Your task to perform on an android device: Open wifi settings Image 0: 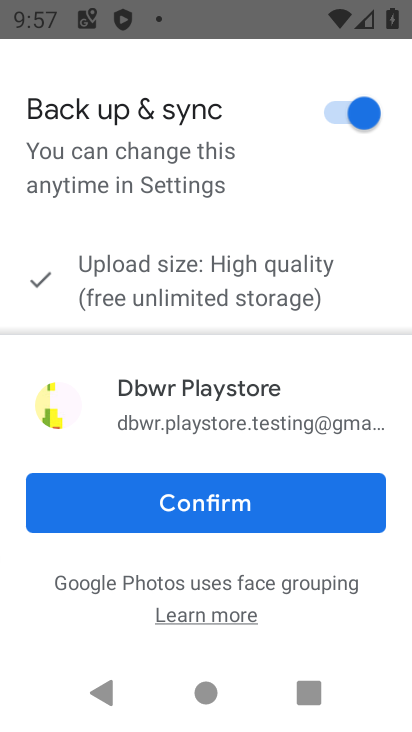
Step 0: press home button
Your task to perform on an android device: Open wifi settings Image 1: 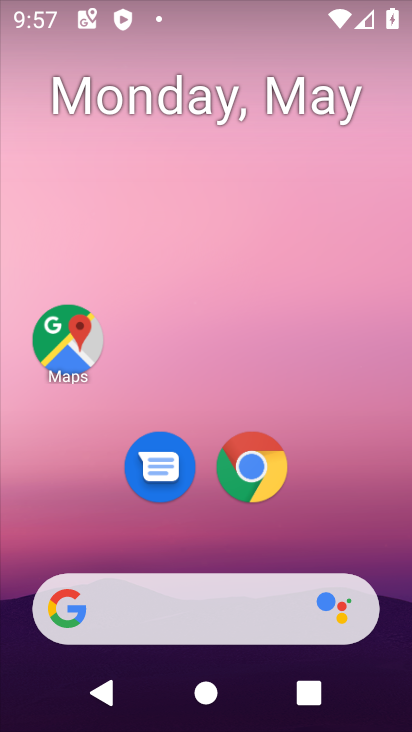
Step 1: drag from (392, 587) to (301, 4)
Your task to perform on an android device: Open wifi settings Image 2: 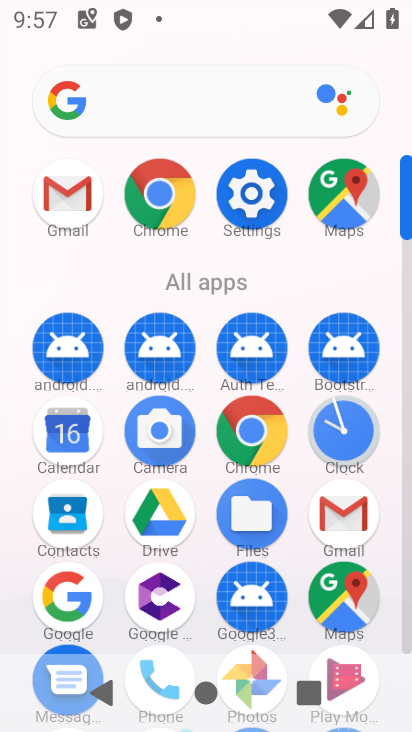
Step 2: click (406, 621)
Your task to perform on an android device: Open wifi settings Image 3: 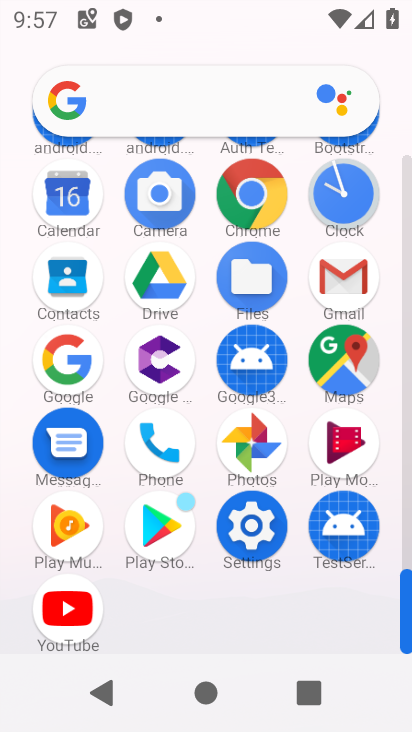
Step 3: click (254, 524)
Your task to perform on an android device: Open wifi settings Image 4: 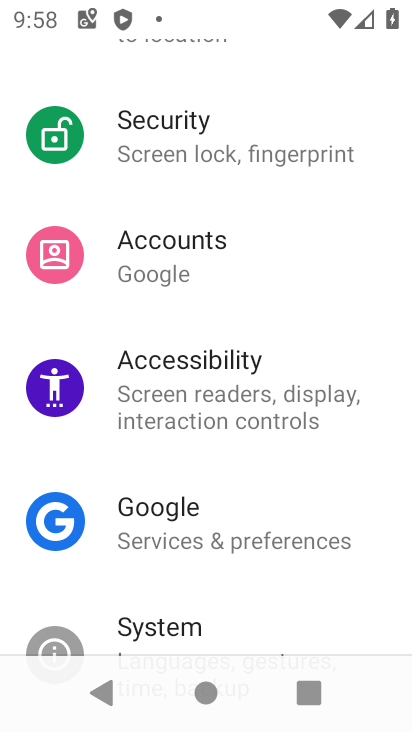
Step 4: drag from (333, 165) to (343, 520)
Your task to perform on an android device: Open wifi settings Image 5: 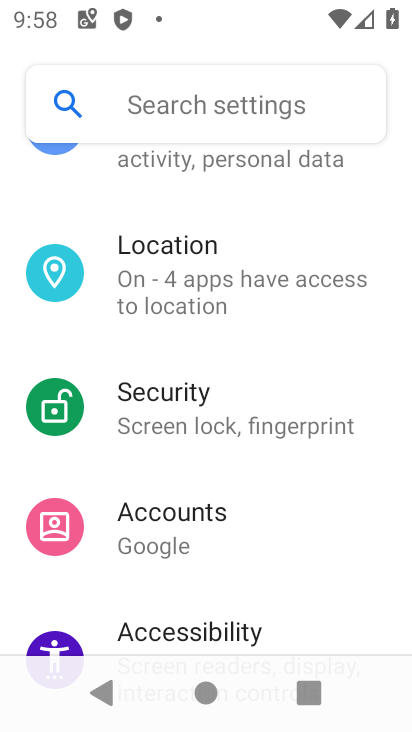
Step 5: drag from (256, 151) to (262, 460)
Your task to perform on an android device: Open wifi settings Image 6: 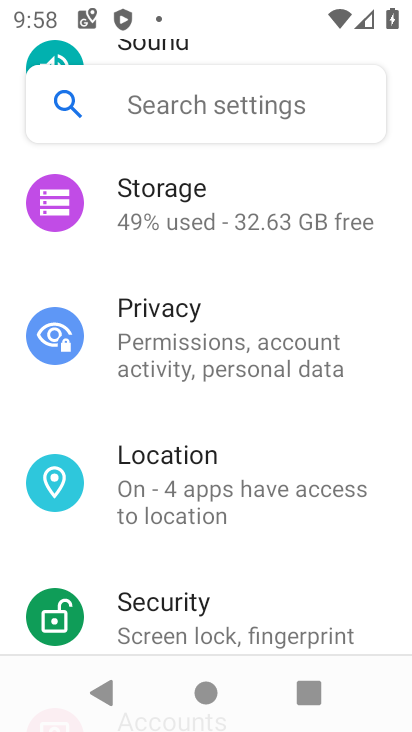
Step 6: drag from (292, 175) to (295, 539)
Your task to perform on an android device: Open wifi settings Image 7: 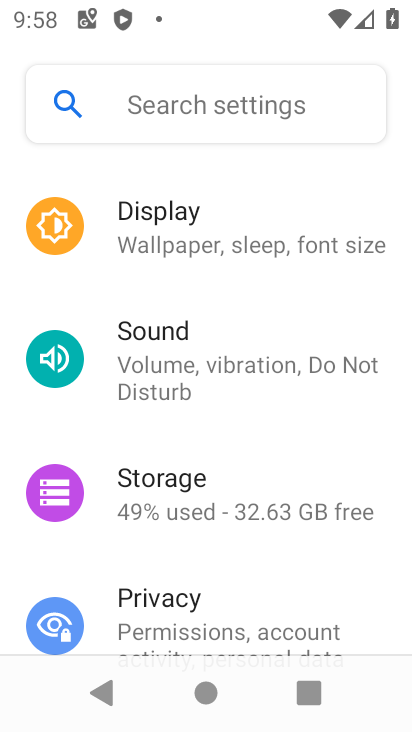
Step 7: drag from (289, 227) to (287, 496)
Your task to perform on an android device: Open wifi settings Image 8: 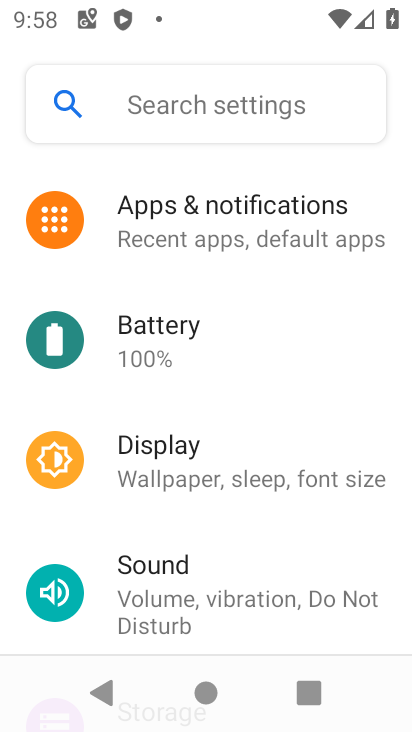
Step 8: drag from (378, 212) to (336, 484)
Your task to perform on an android device: Open wifi settings Image 9: 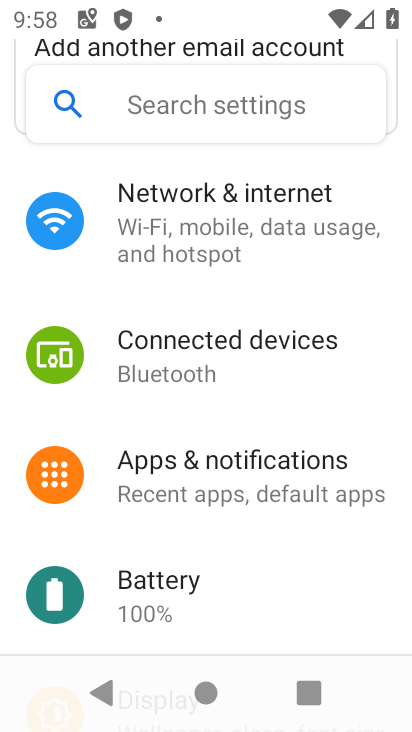
Step 9: click (160, 216)
Your task to perform on an android device: Open wifi settings Image 10: 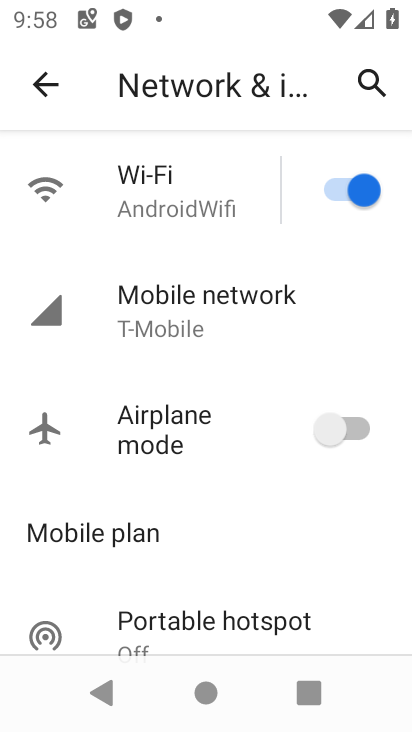
Step 10: click (139, 194)
Your task to perform on an android device: Open wifi settings Image 11: 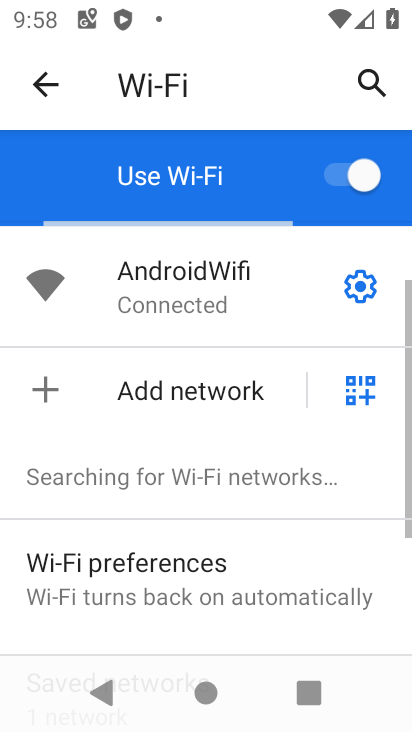
Step 11: drag from (179, 585) to (153, 181)
Your task to perform on an android device: Open wifi settings Image 12: 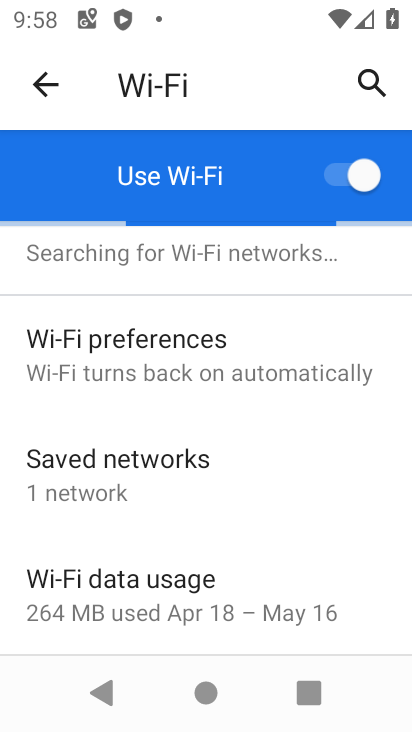
Step 12: drag from (349, 328) to (267, 601)
Your task to perform on an android device: Open wifi settings Image 13: 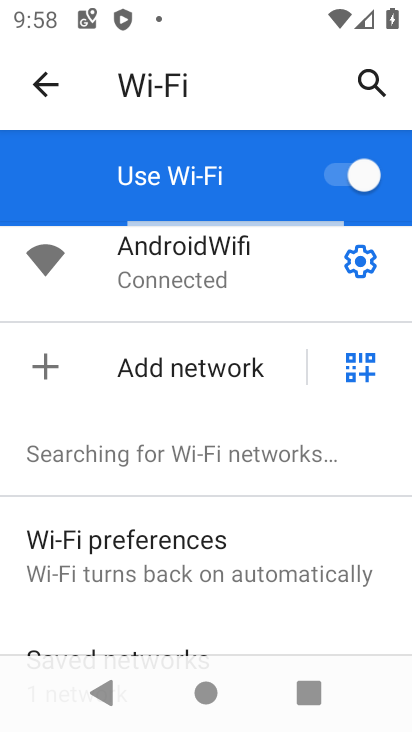
Step 13: click (356, 261)
Your task to perform on an android device: Open wifi settings Image 14: 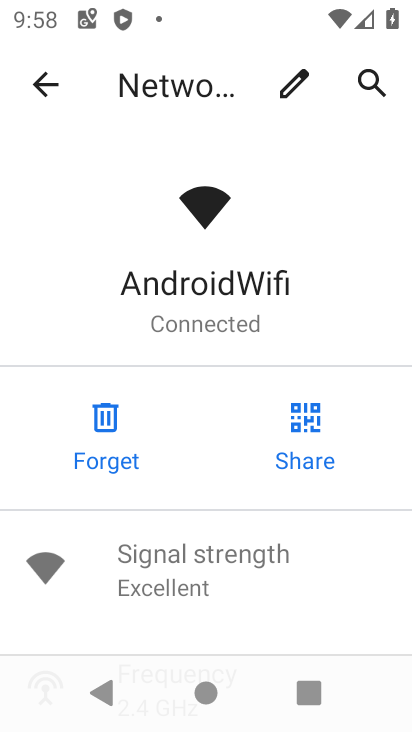
Step 14: drag from (218, 609) to (186, 324)
Your task to perform on an android device: Open wifi settings Image 15: 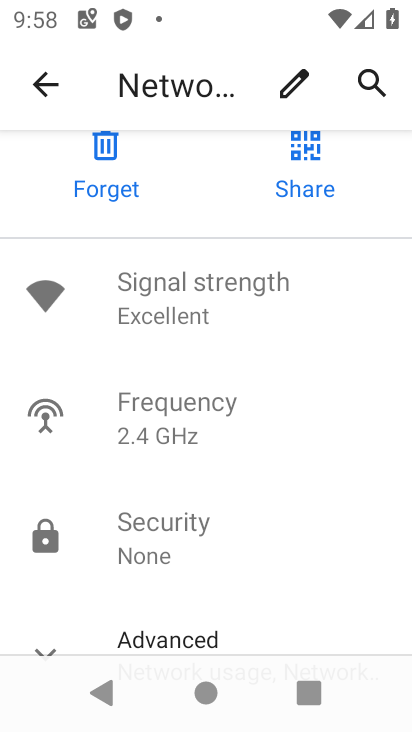
Step 15: drag from (206, 603) to (171, 233)
Your task to perform on an android device: Open wifi settings Image 16: 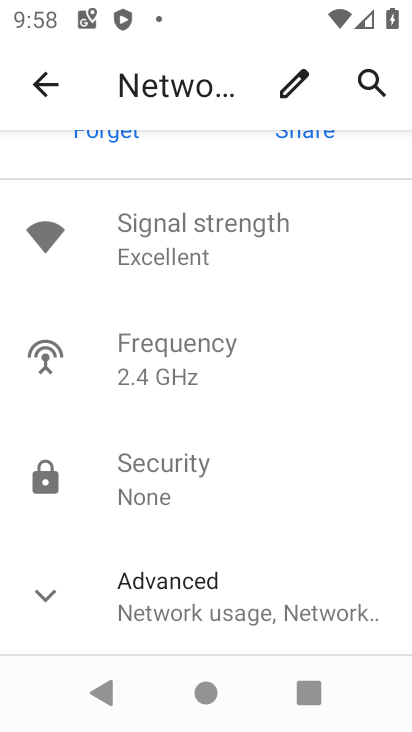
Step 16: click (37, 602)
Your task to perform on an android device: Open wifi settings Image 17: 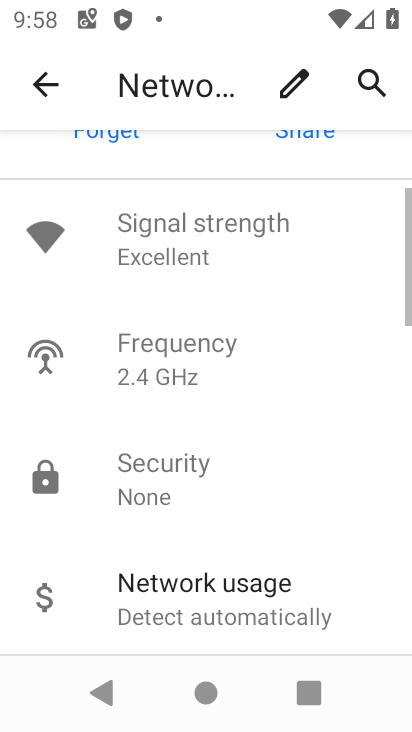
Step 17: task complete